Your task to perform on an android device: Open sound settings Image 0: 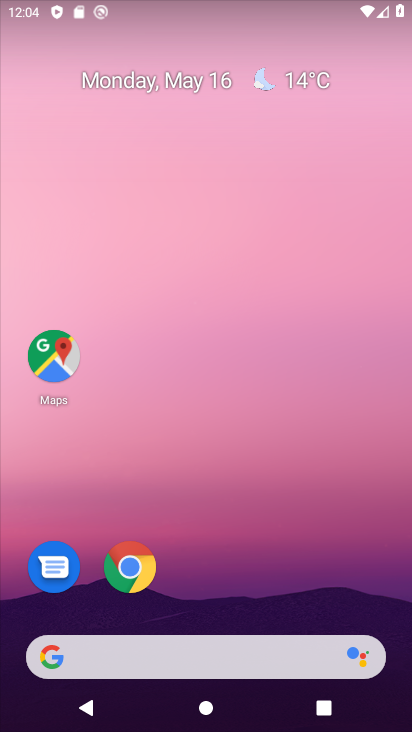
Step 0: drag from (279, 498) to (161, 64)
Your task to perform on an android device: Open sound settings Image 1: 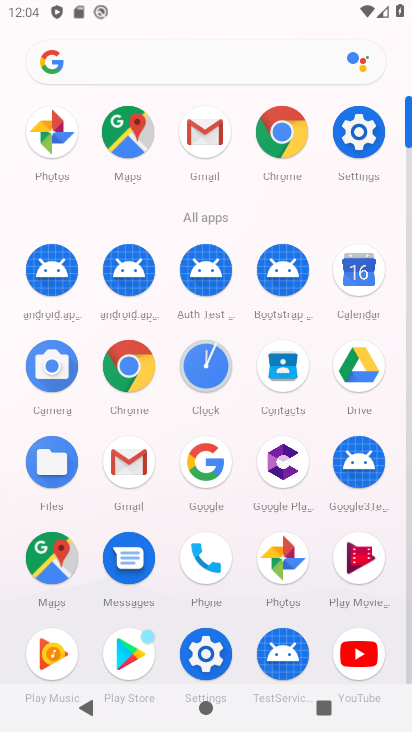
Step 1: click (360, 125)
Your task to perform on an android device: Open sound settings Image 2: 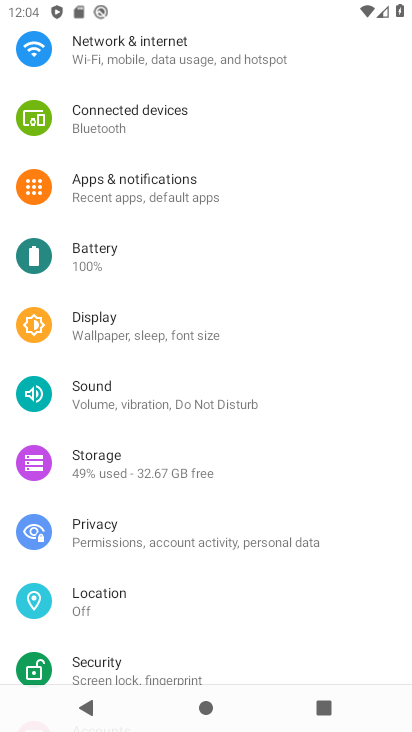
Step 2: click (86, 389)
Your task to perform on an android device: Open sound settings Image 3: 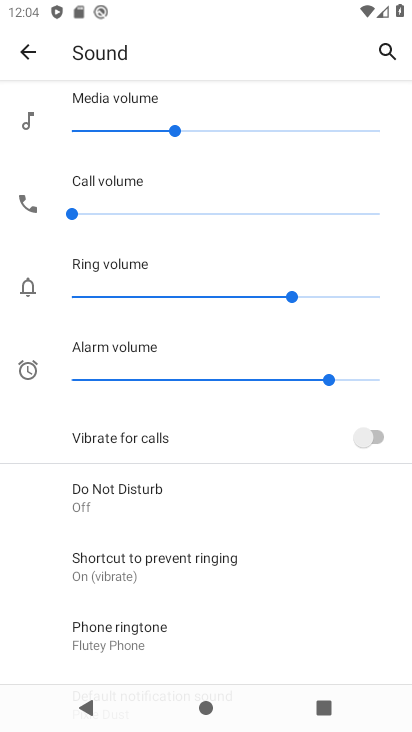
Step 3: task complete